Your task to perform on an android device: delete a single message in the gmail app Image 0: 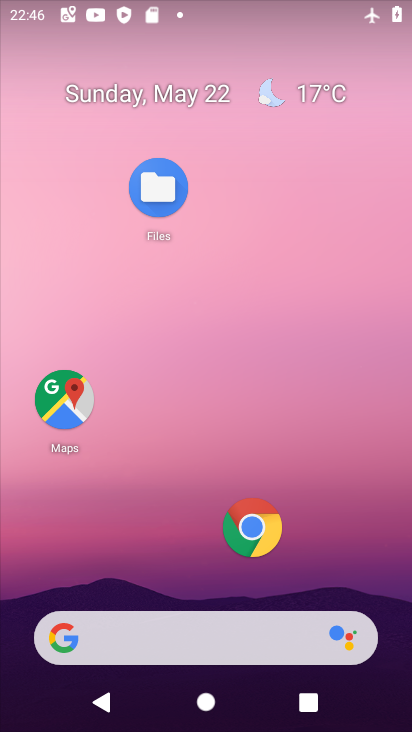
Step 0: drag from (165, 545) to (97, 17)
Your task to perform on an android device: delete a single message in the gmail app Image 1: 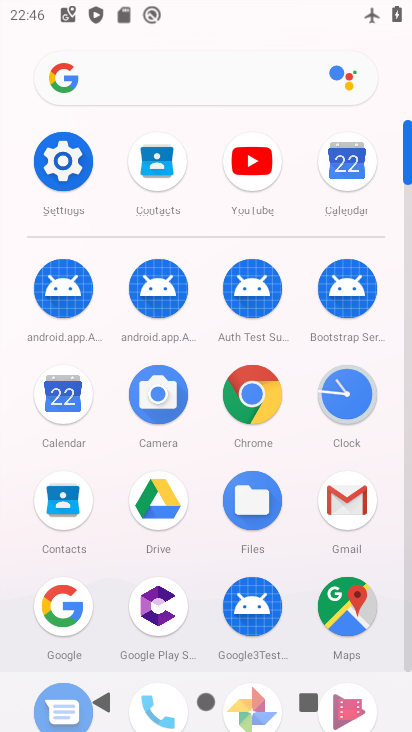
Step 1: click (343, 496)
Your task to perform on an android device: delete a single message in the gmail app Image 2: 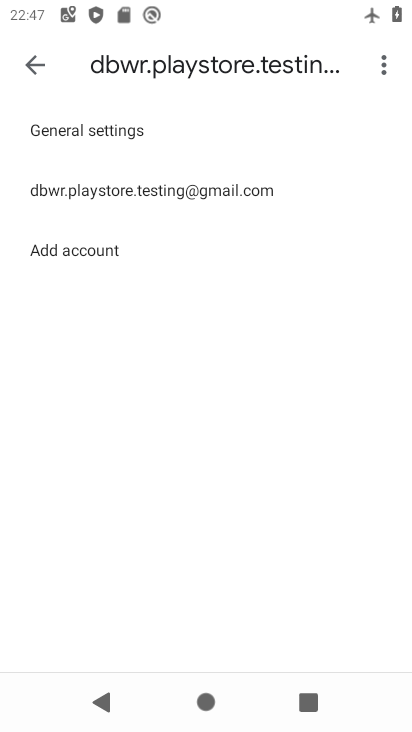
Step 2: click (38, 71)
Your task to perform on an android device: delete a single message in the gmail app Image 3: 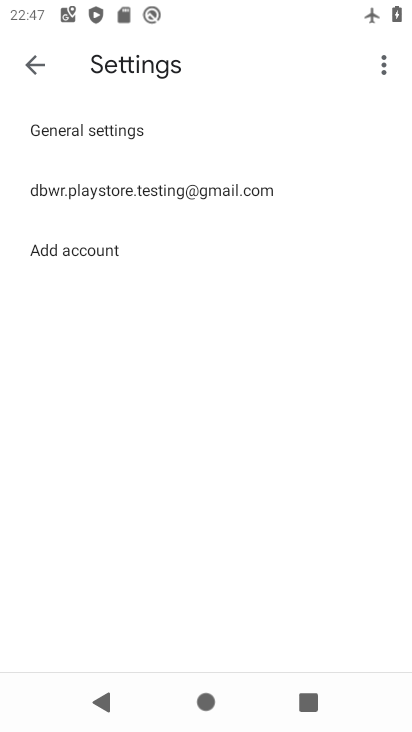
Step 3: click (29, 61)
Your task to perform on an android device: delete a single message in the gmail app Image 4: 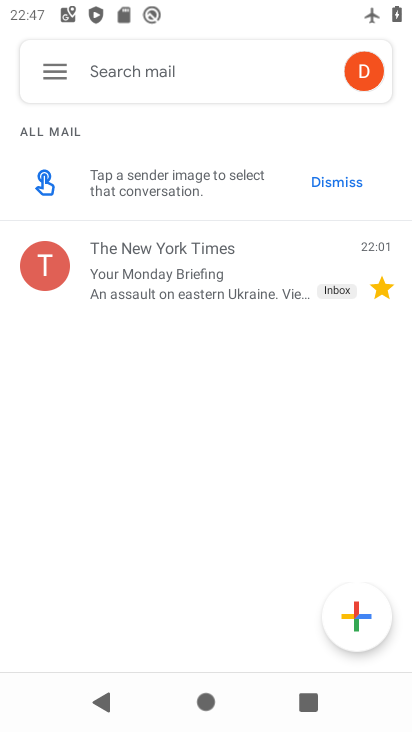
Step 4: click (243, 266)
Your task to perform on an android device: delete a single message in the gmail app Image 5: 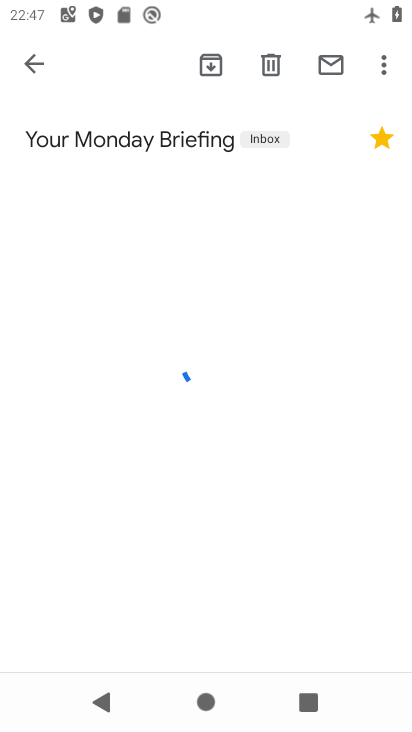
Step 5: click (264, 65)
Your task to perform on an android device: delete a single message in the gmail app Image 6: 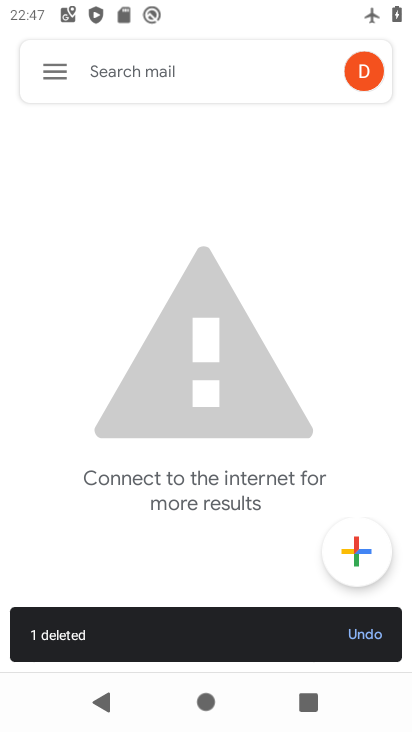
Step 6: task complete